Your task to perform on an android device: Go to CNN.com Image 0: 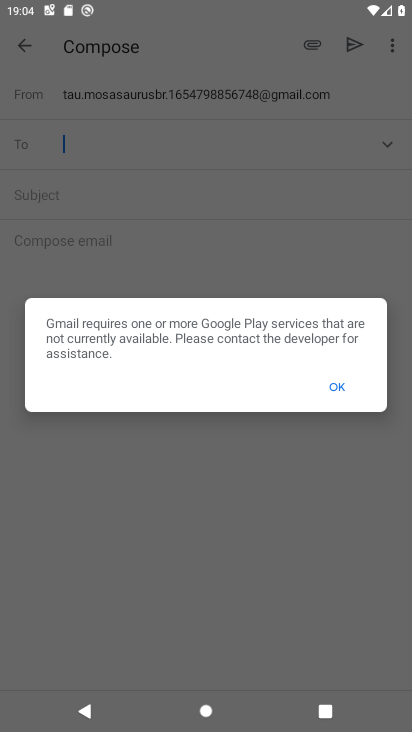
Step 0: press home button
Your task to perform on an android device: Go to CNN.com Image 1: 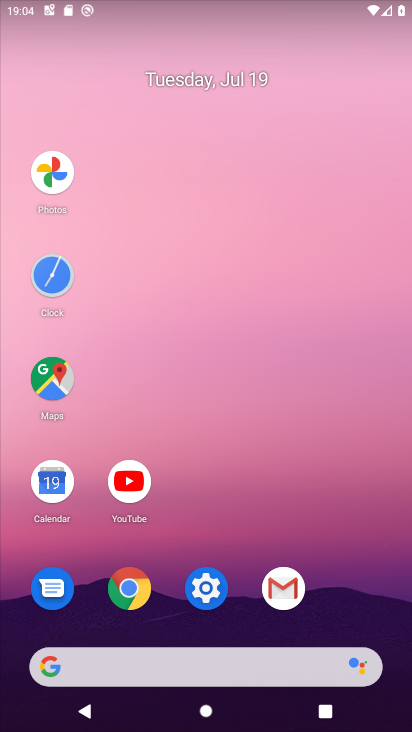
Step 1: click (125, 580)
Your task to perform on an android device: Go to CNN.com Image 2: 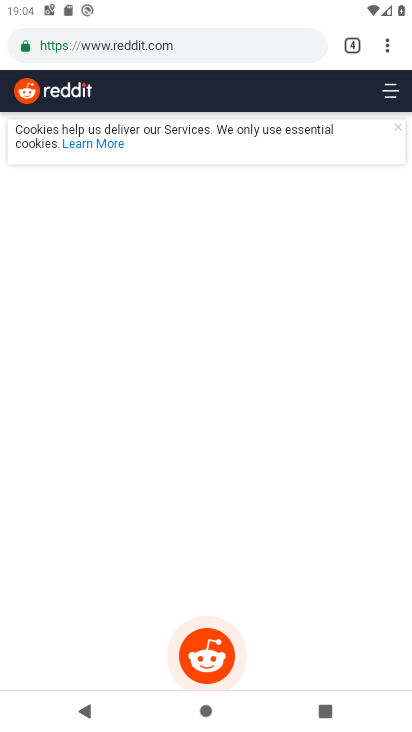
Step 2: click (386, 40)
Your task to perform on an android device: Go to CNN.com Image 3: 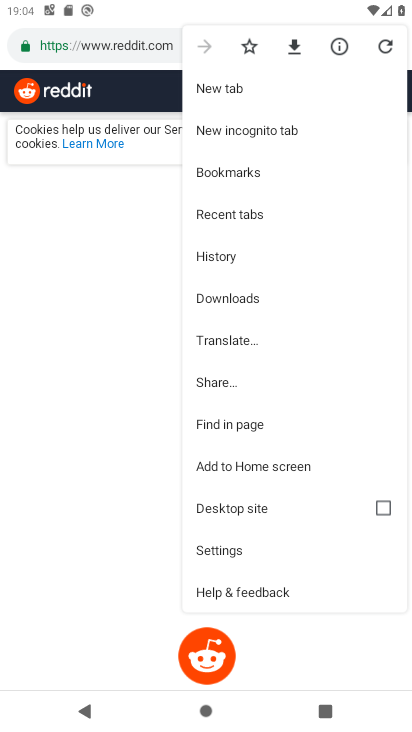
Step 3: click (215, 84)
Your task to perform on an android device: Go to CNN.com Image 4: 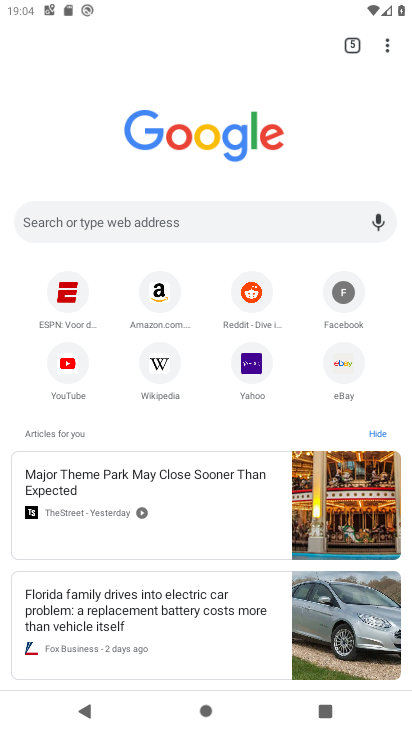
Step 4: click (194, 214)
Your task to perform on an android device: Go to CNN.com Image 5: 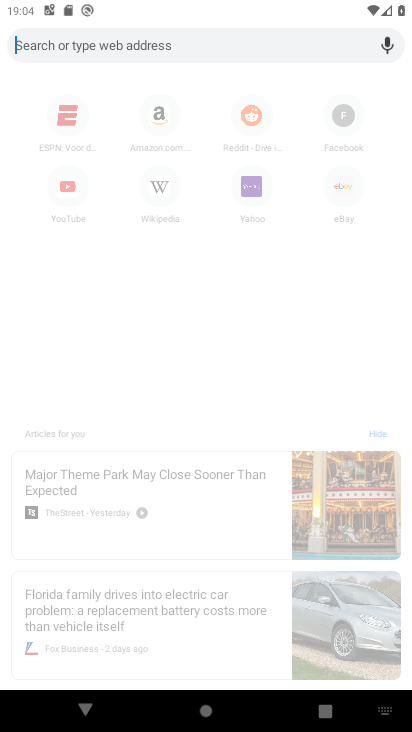
Step 5: type "cnn.com"
Your task to perform on an android device: Go to CNN.com Image 6: 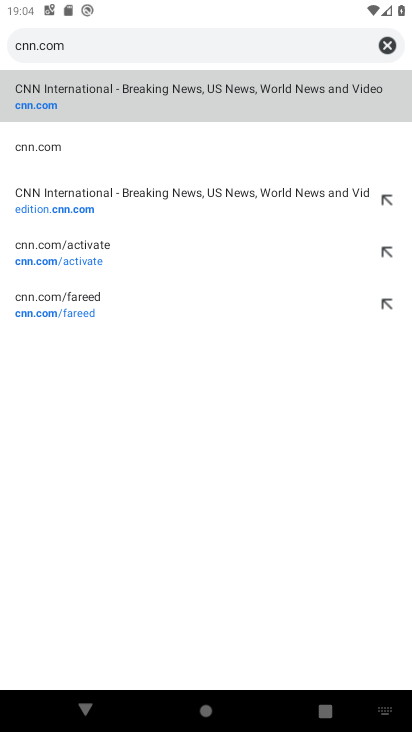
Step 6: click (44, 149)
Your task to perform on an android device: Go to CNN.com Image 7: 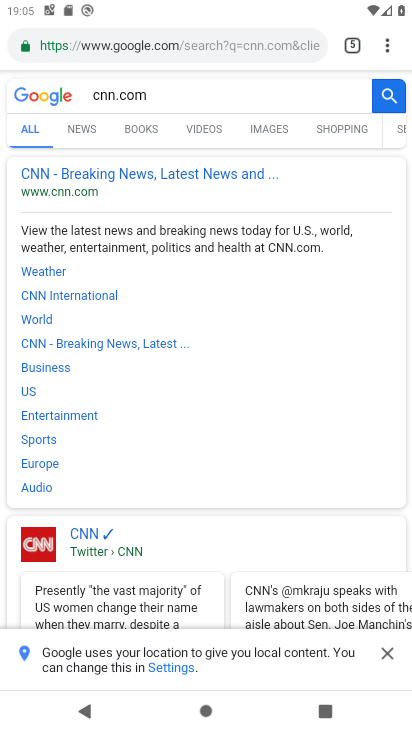
Step 7: click (135, 169)
Your task to perform on an android device: Go to CNN.com Image 8: 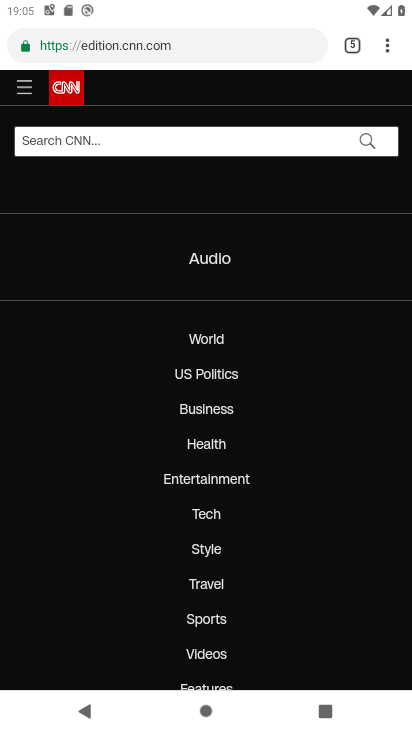
Step 8: task complete